Your task to perform on an android device: Open calendar and show me the first week of next month Image 0: 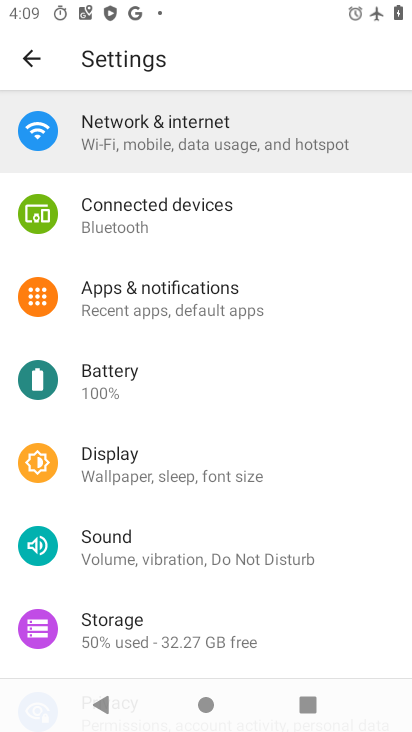
Step 0: press home button
Your task to perform on an android device: Open calendar and show me the first week of next month Image 1: 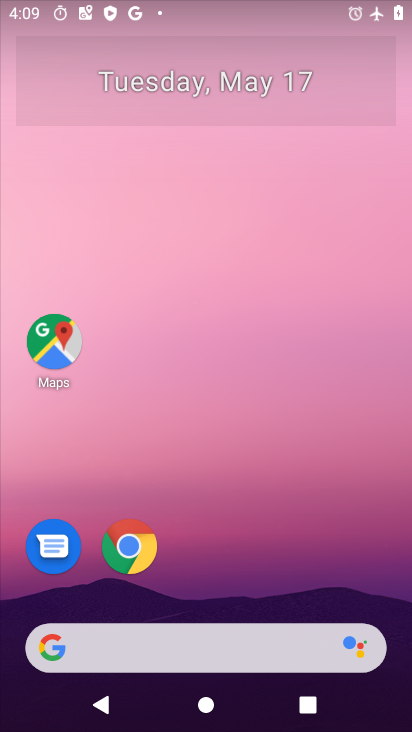
Step 1: drag from (368, 315) to (361, 227)
Your task to perform on an android device: Open calendar and show me the first week of next month Image 2: 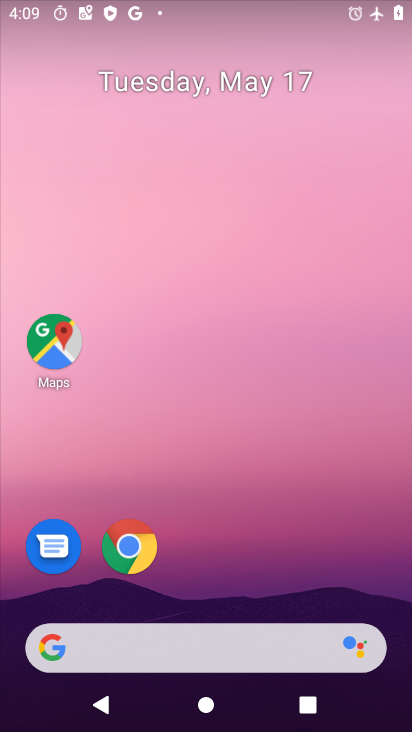
Step 2: drag from (400, 669) to (379, 264)
Your task to perform on an android device: Open calendar and show me the first week of next month Image 3: 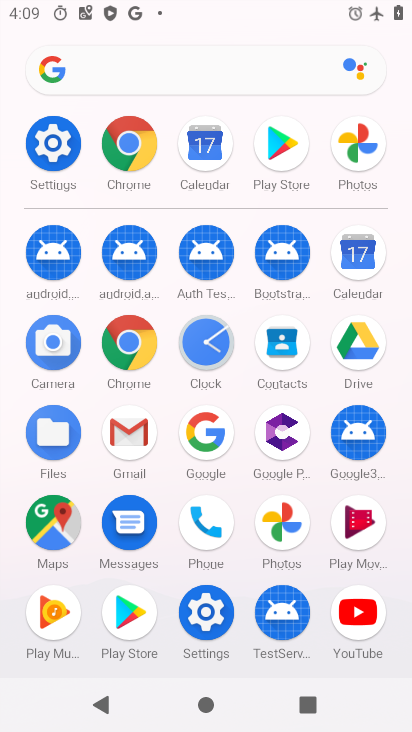
Step 3: click (347, 274)
Your task to perform on an android device: Open calendar and show me the first week of next month Image 4: 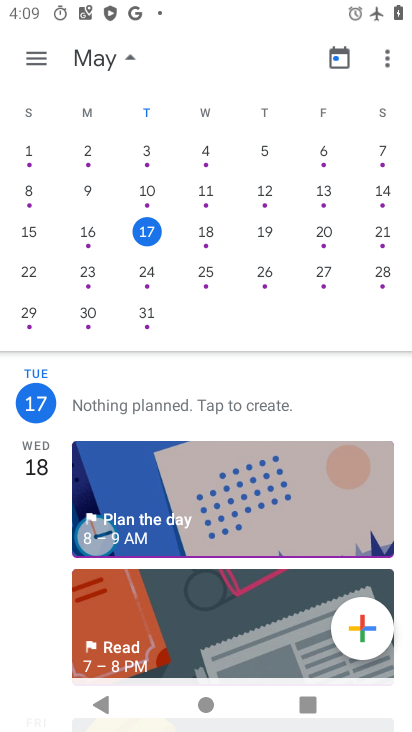
Step 4: drag from (403, 176) to (128, 128)
Your task to perform on an android device: Open calendar and show me the first week of next month Image 5: 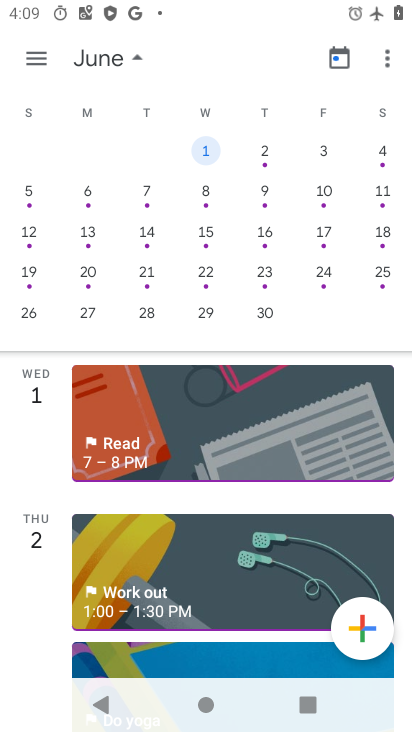
Step 5: click (265, 155)
Your task to perform on an android device: Open calendar and show me the first week of next month Image 6: 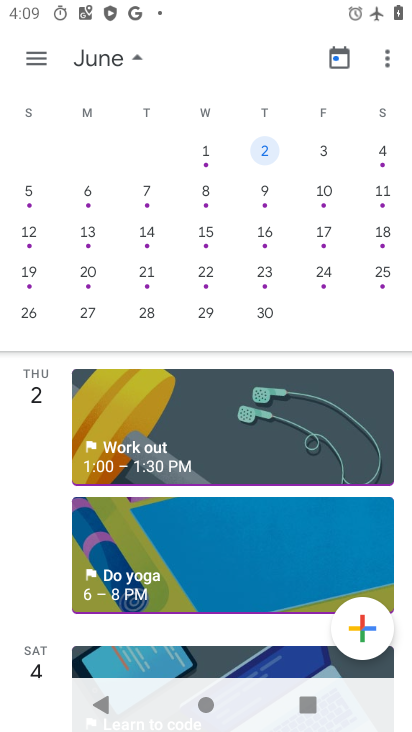
Step 6: click (31, 58)
Your task to perform on an android device: Open calendar and show me the first week of next month Image 7: 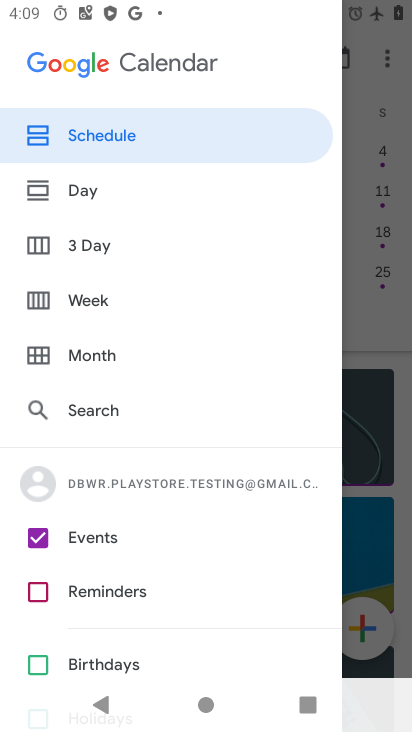
Step 7: click (77, 297)
Your task to perform on an android device: Open calendar and show me the first week of next month Image 8: 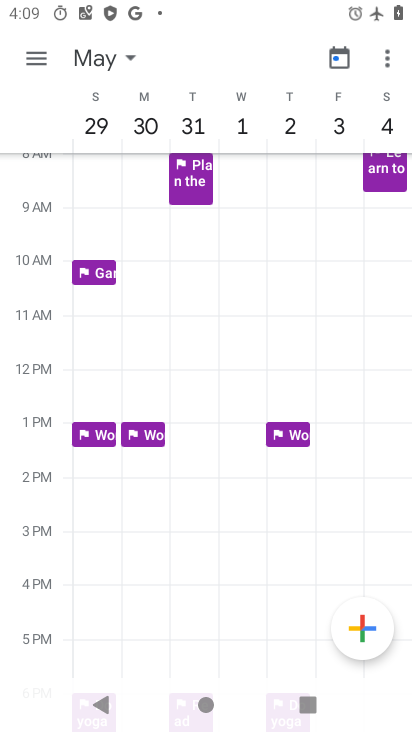
Step 8: task complete